Your task to perform on an android device: turn off smart reply in the gmail app Image 0: 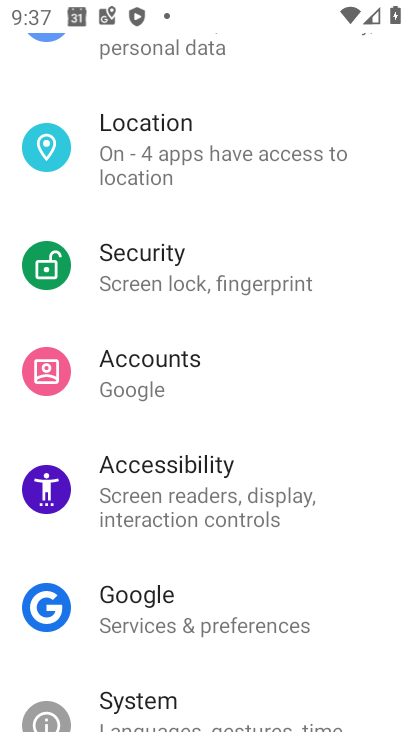
Step 0: press home button
Your task to perform on an android device: turn off smart reply in the gmail app Image 1: 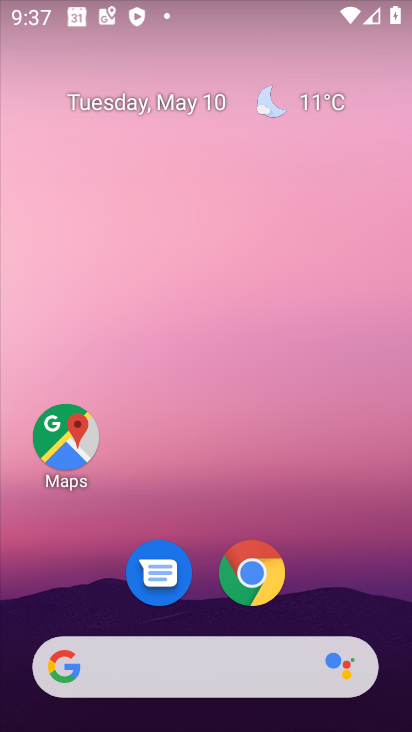
Step 1: drag from (381, 632) to (393, 30)
Your task to perform on an android device: turn off smart reply in the gmail app Image 2: 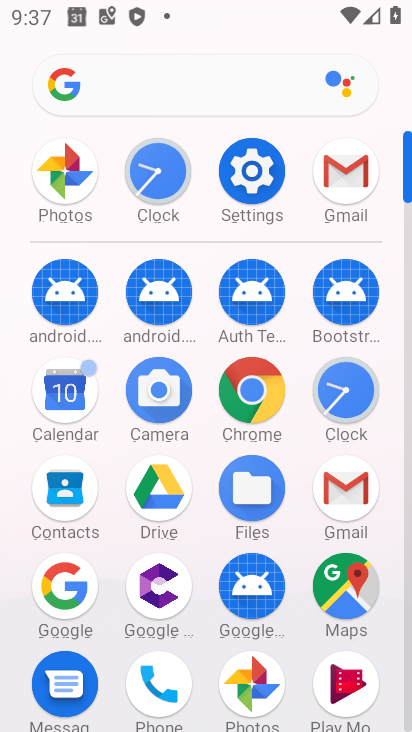
Step 2: click (333, 178)
Your task to perform on an android device: turn off smart reply in the gmail app Image 3: 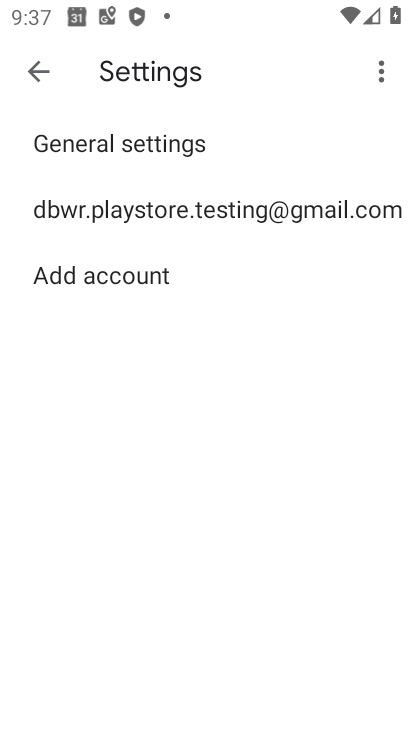
Step 3: click (119, 210)
Your task to perform on an android device: turn off smart reply in the gmail app Image 4: 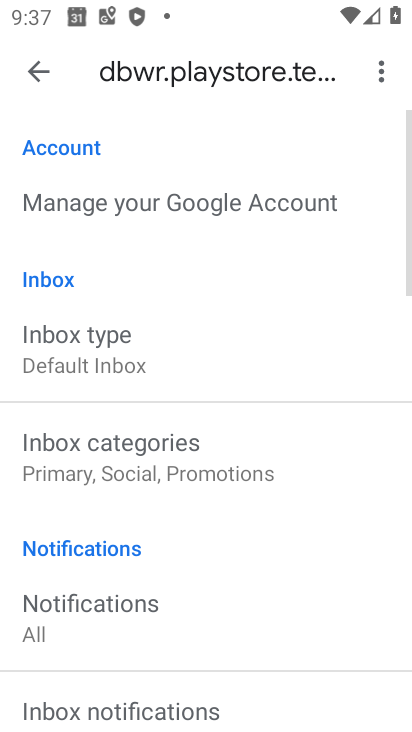
Step 4: drag from (234, 540) to (233, 165)
Your task to perform on an android device: turn off smart reply in the gmail app Image 5: 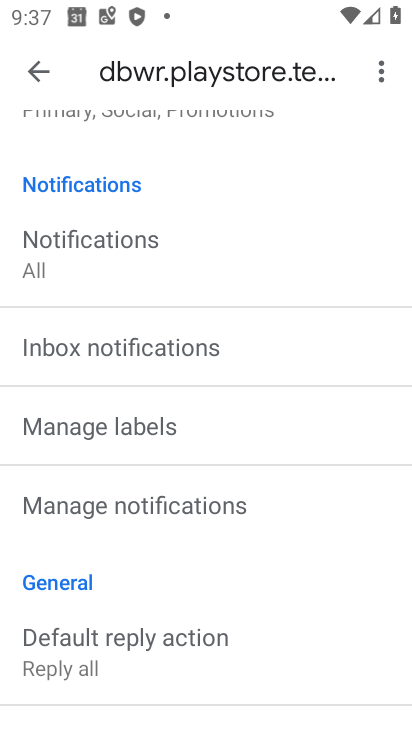
Step 5: drag from (184, 484) to (189, 142)
Your task to perform on an android device: turn off smart reply in the gmail app Image 6: 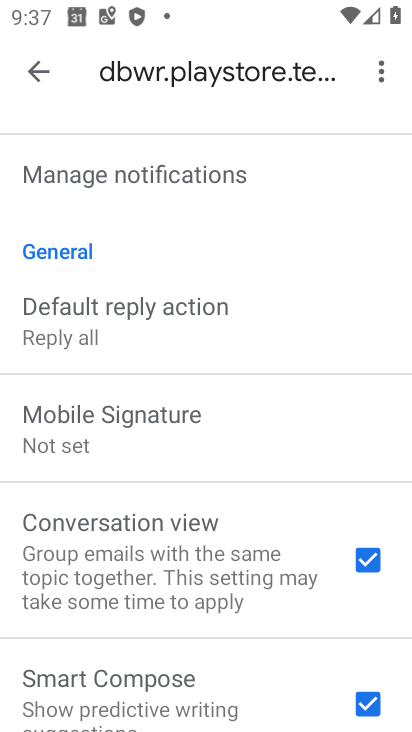
Step 6: drag from (197, 476) to (197, 147)
Your task to perform on an android device: turn off smart reply in the gmail app Image 7: 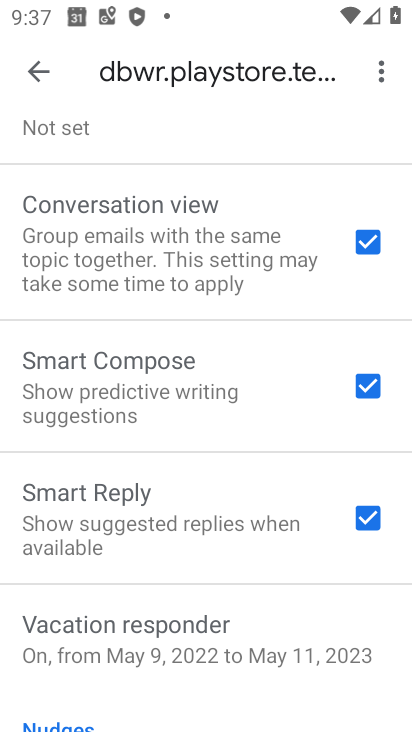
Step 7: click (368, 521)
Your task to perform on an android device: turn off smart reply in the gmail app Image 8: 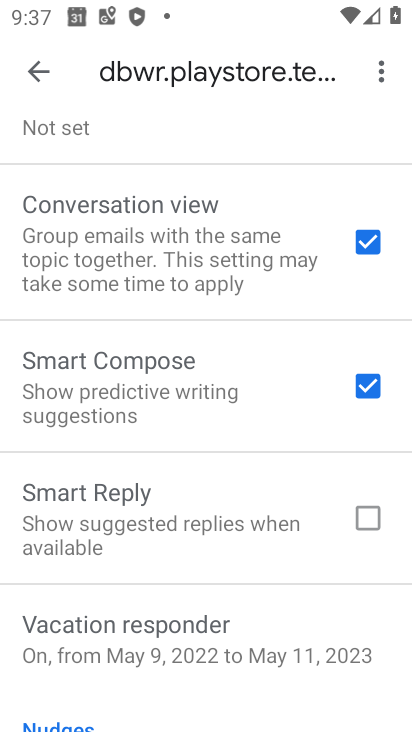
Step 8: task complete